Your task to perform on an android device: Go to accessibility settings Image 0: 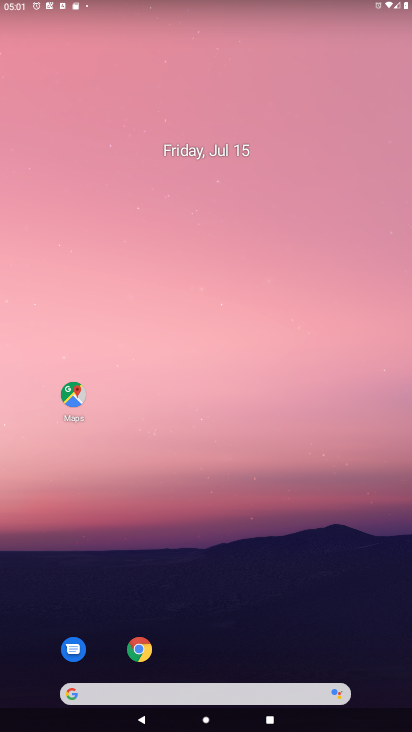
Step 0: drag from (365, 644) to (359, 53)
Your task to perform on an android device: Go to accessibility settings Image 1: 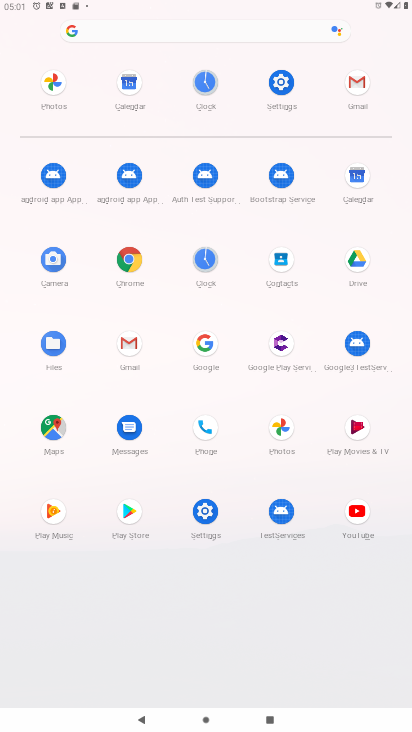
Step 1: click (207, 513)
Your task to perform on an android device: Go to accessibility settings Image 2: 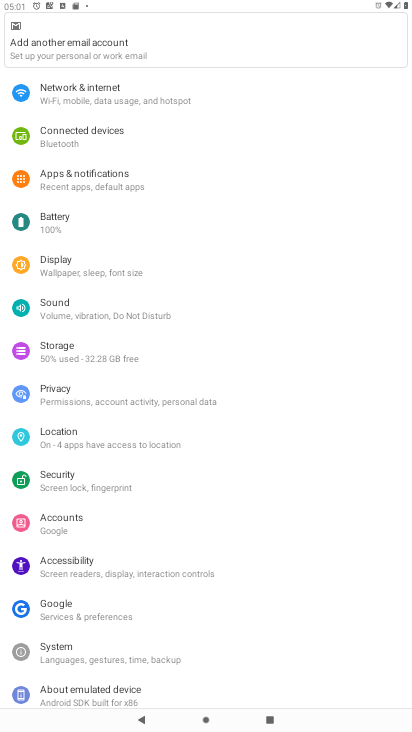
Step 2: click (61, 564)
Your task to perform on an android device: Go to accessibility settings Image 3: 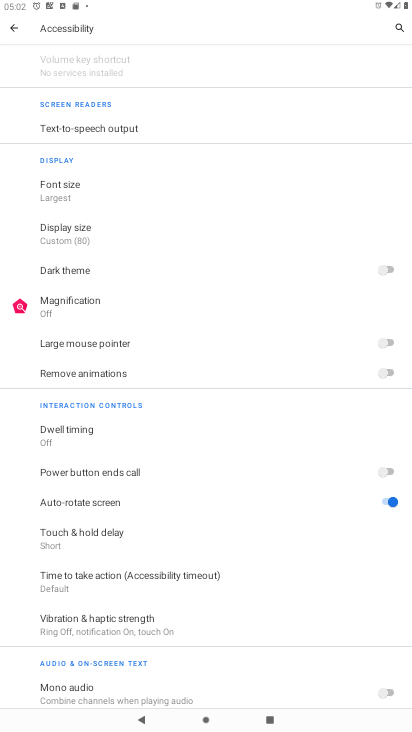
Step 3: task complete